Your task to perform on an android device: find which apps use the phone's location Image 0: 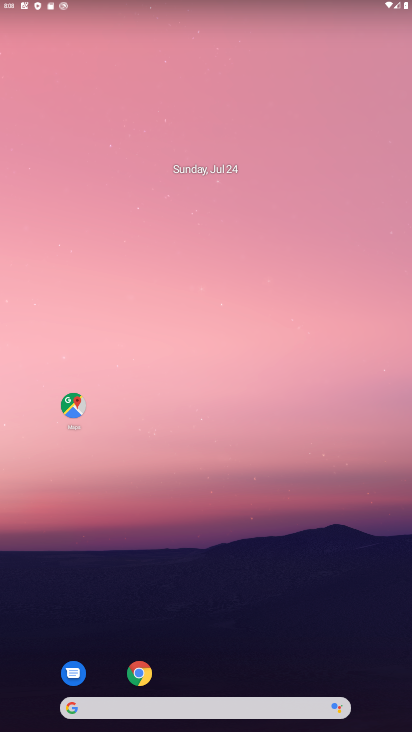
Step 0: click (220, 8)
Your task to perform on an android device: find which apps use the phone's location Image 1: 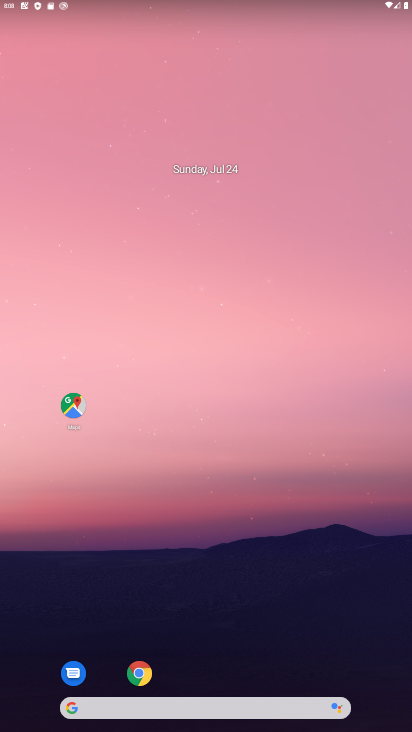
Step 1: click (202, 629)
Your task to perform on an android device: find which apps use the phone's location Image 2: 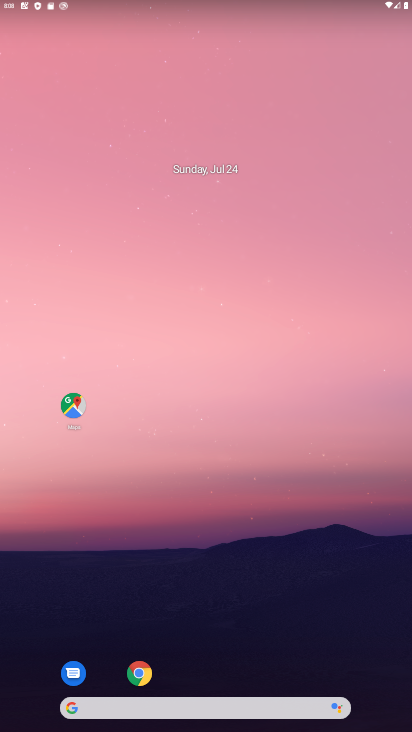
Step 2: click (202, 629)
Your task to perform on an android device: find which apps use the phone's location Image 3: 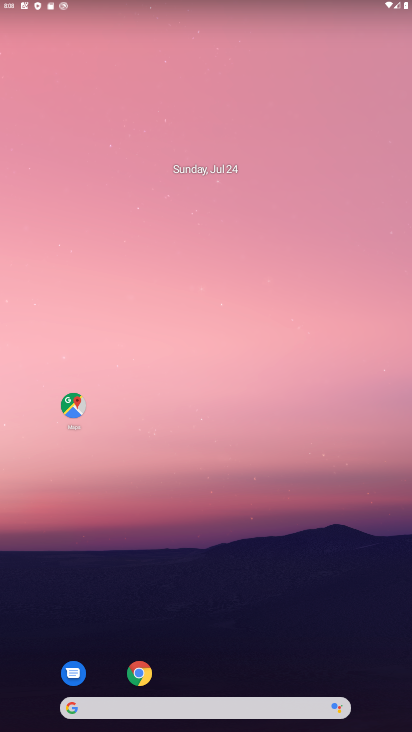
Step 3: drag from (180, 598) to (149, 274)
Your task to perform on an android device: find which apps use the phone's location Image 4: 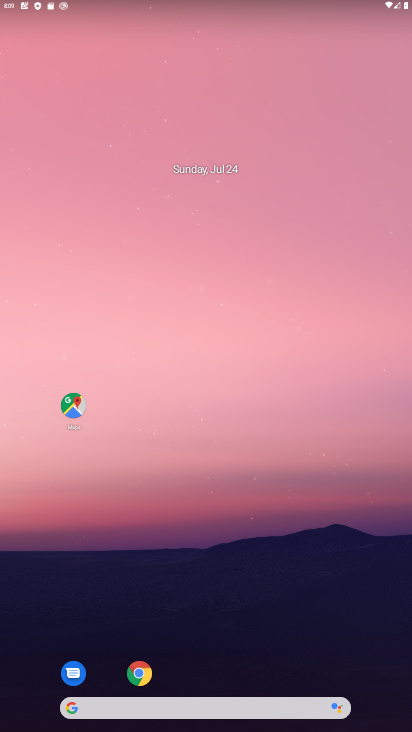
Step 4: drag from (160, 632) to (156, 52)
Your task to perform on an android device: find which apps use the phone's location Image 5: 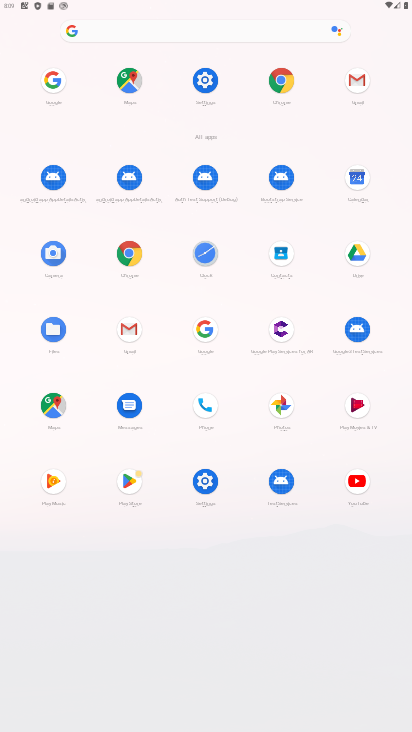
Step 5: click (202, 80)
Your task to perform on an android device: find which apps use the phone's location Image 6: 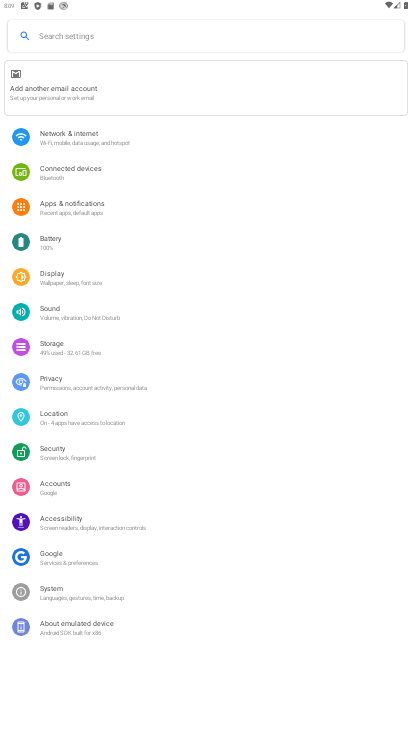
Step 6: click (49, 416)
Your task to perform on an android device: find which apps use the phone's location Image 7: 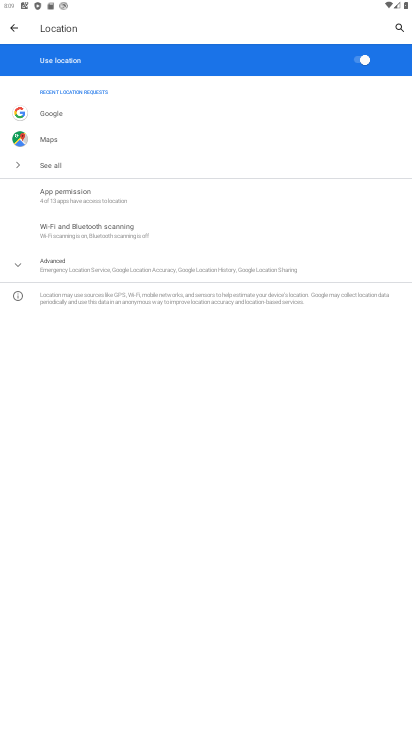
Step 7: click (51, 194)
Your task to perform on an android device: find which apps use the phone's location Image 8: 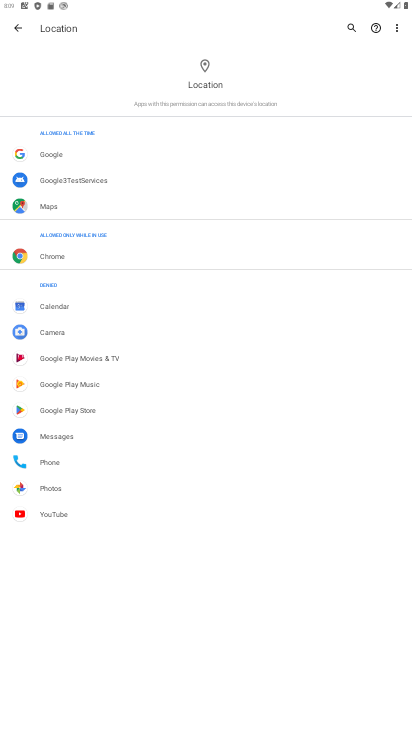
Step 8: task complete